Your task to perform on an android device: change notifications settings Image 0: 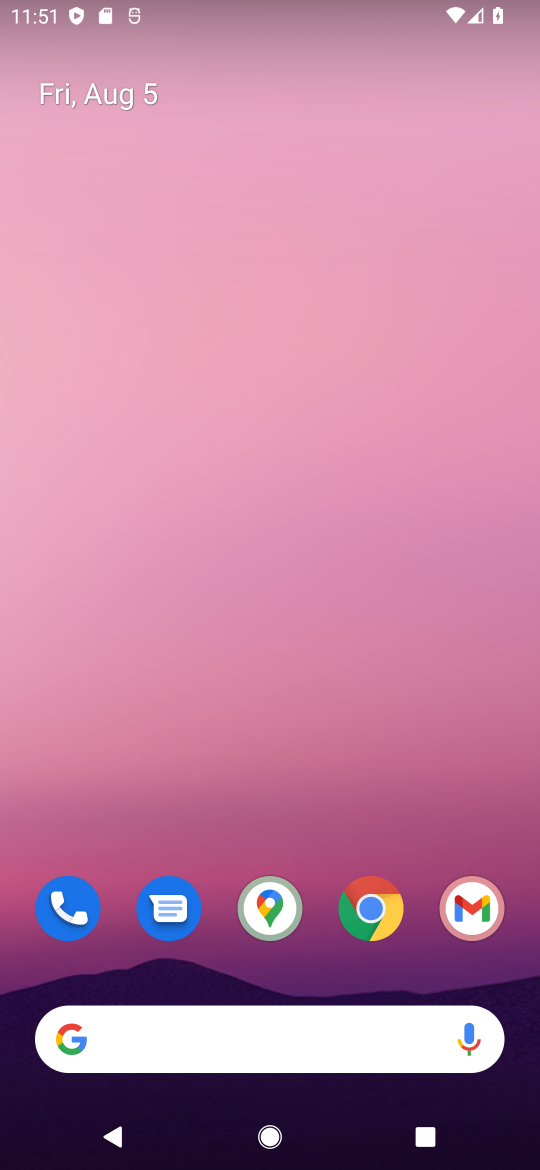
Step 0: press home button
Your task to perform on an android device: change notifications settings Image 1: 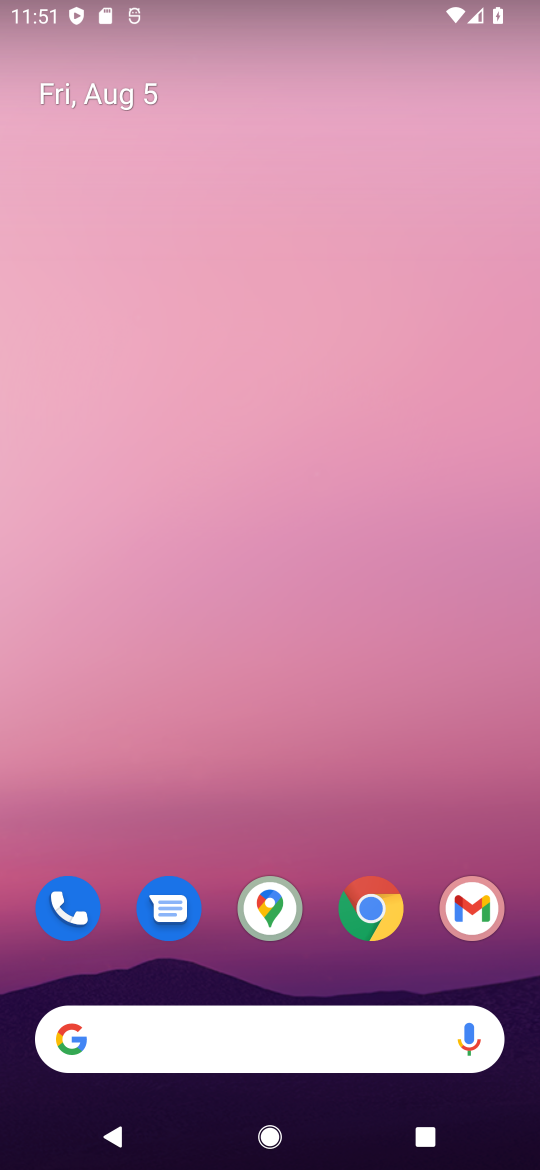
Step 1: drag from (338, 959) to (403, 204)
Your task to perform on an android device: change notifications settings Image 2: 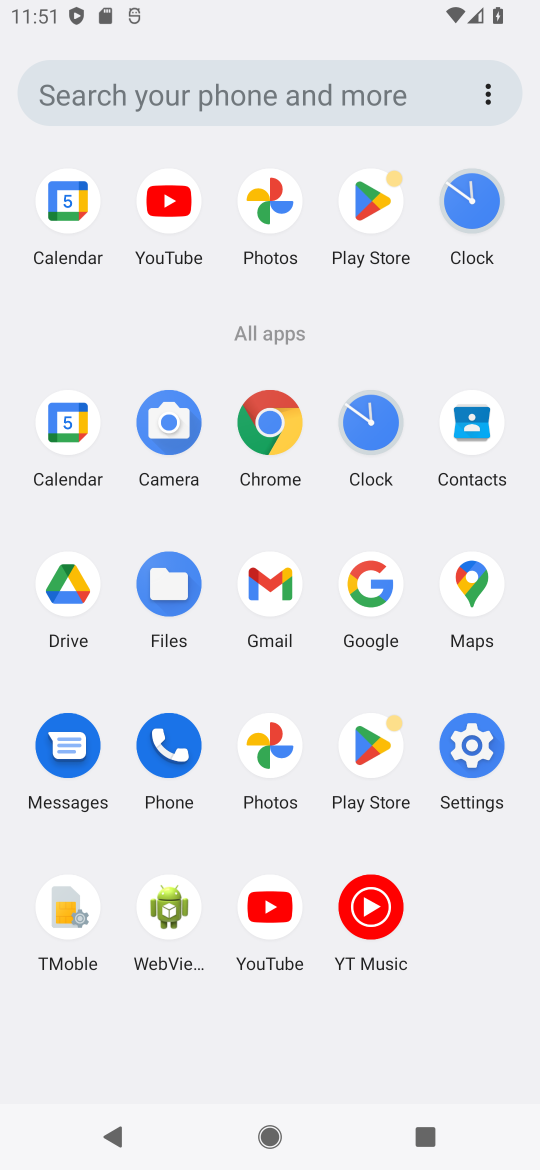
Step 2: click (485, 733)
Your task to perform on an android device: change notifications settings Image 3: 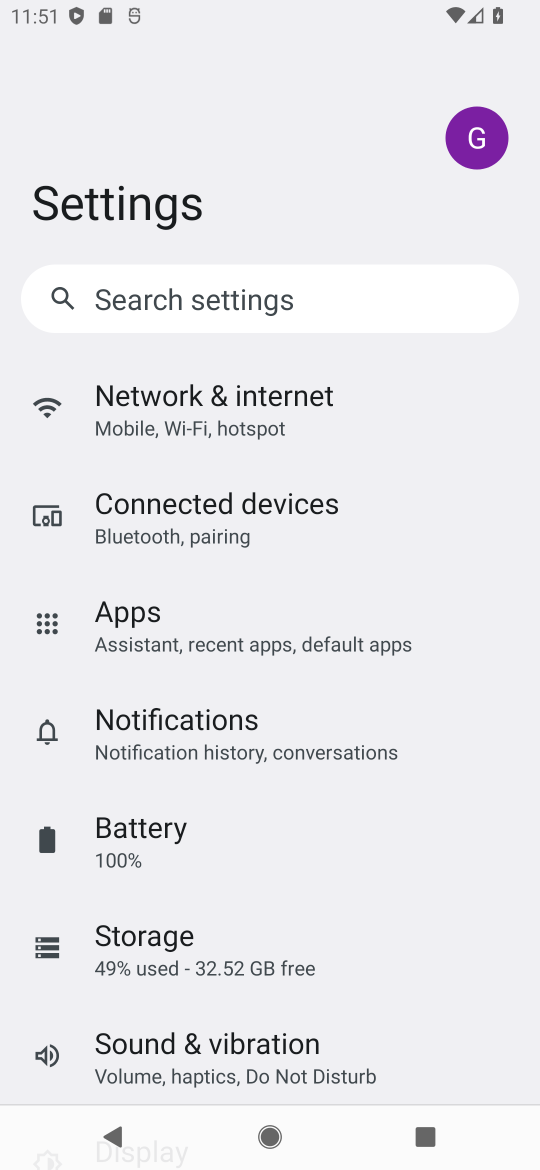
Step 3: click (115, 730)
Your task to perform on an android device: change notifications settings Image 4: 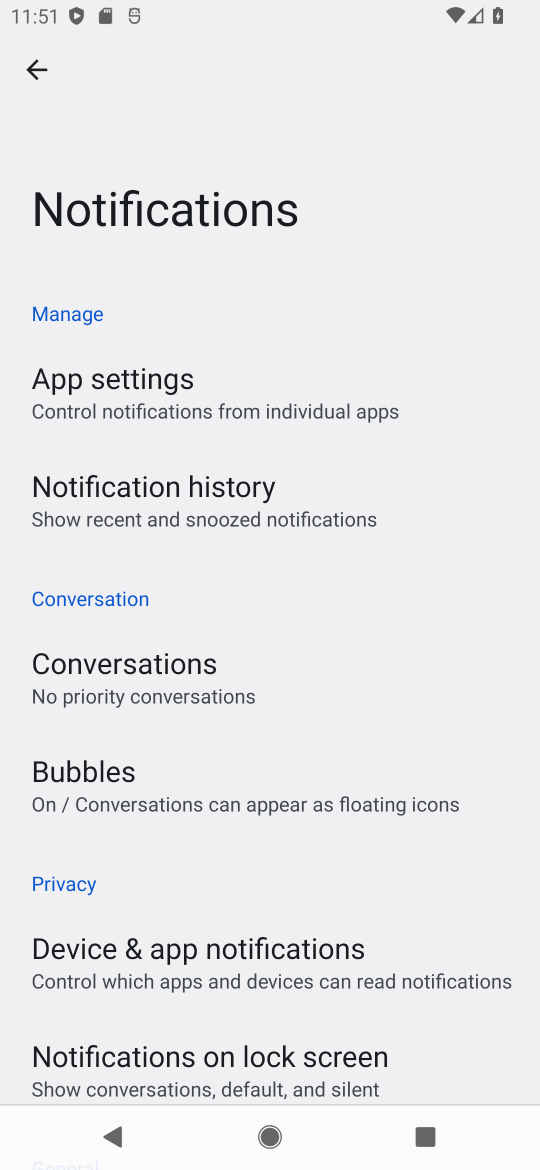
Step 4: click (267, 942)
Your task to perform on an android device: change notifications settings Image 5: 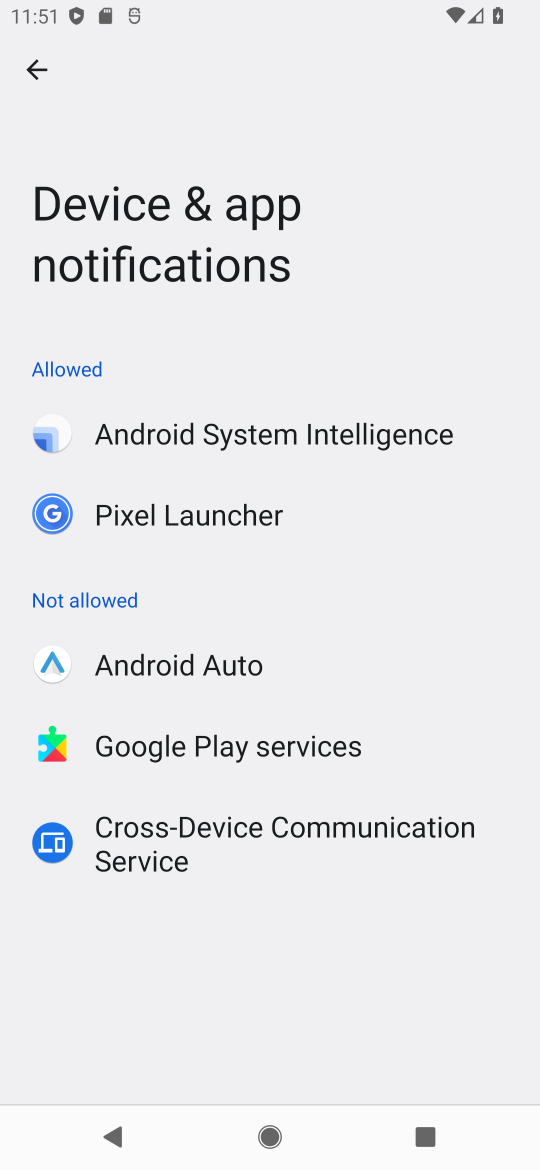
Step 5: click (39, 59)
Your task to perform on an android device: change notifications settings Image 6: 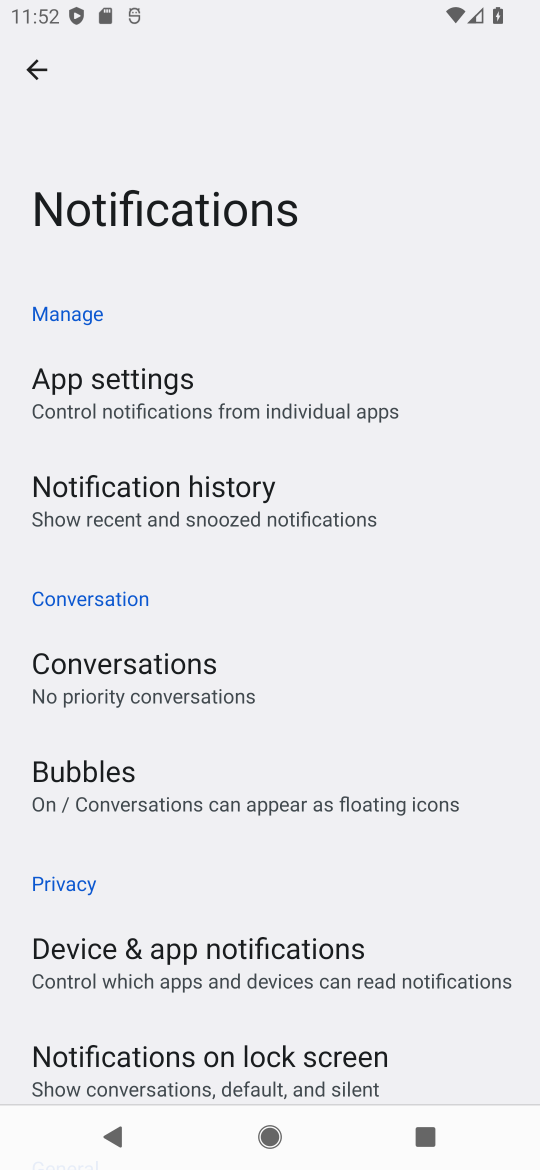
Step 6: task complete